Your task to perform on an android device: Open the stopwatch Image 0: 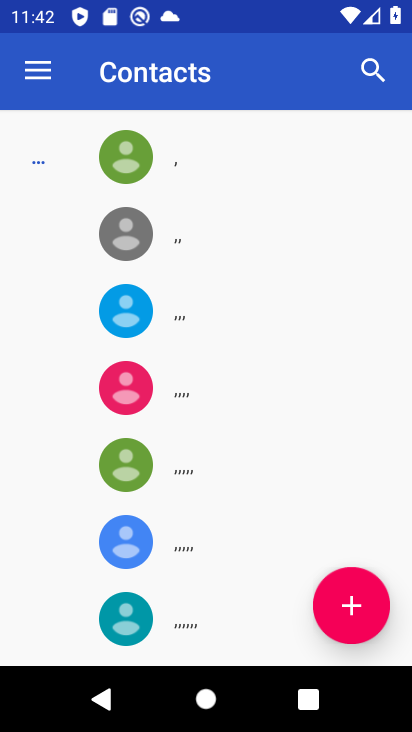
Step 0: press home button
Your task to perform on an android device: Open the stopwatch Image 1: 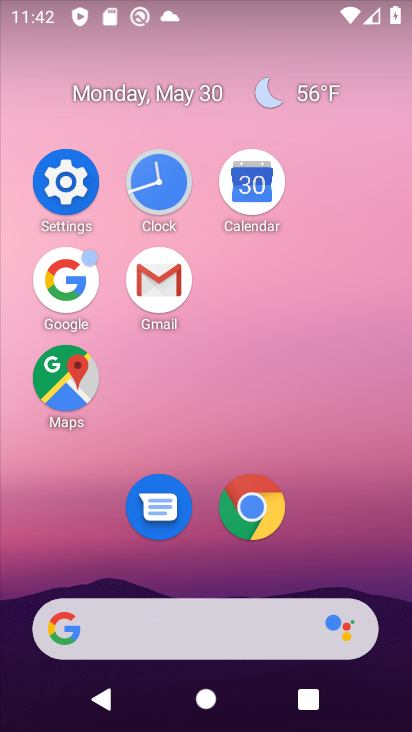
Step 1: click (155, 197)
Your task to perform on an android device: Open the stopwatch Image 2: 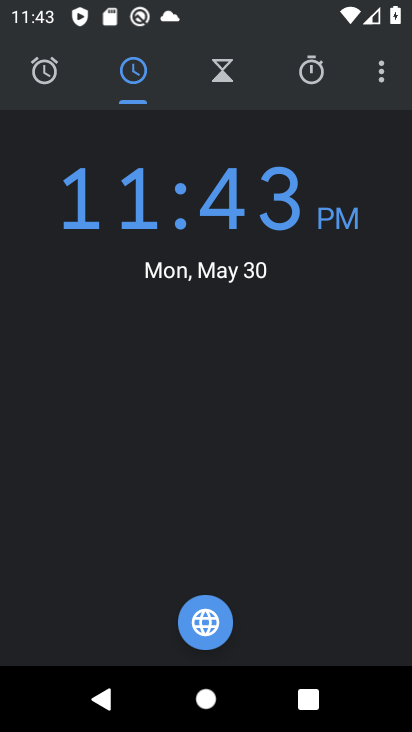
Step 2: click (325, 66)
Your task to perform on an android device: Open the stopwatch Image 3: 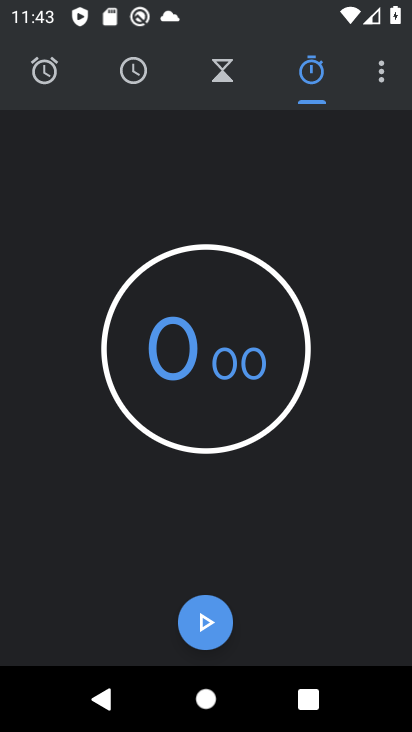
Step 3: task complete